Your task to perform on an android device: open device folders in google photos Image 0: 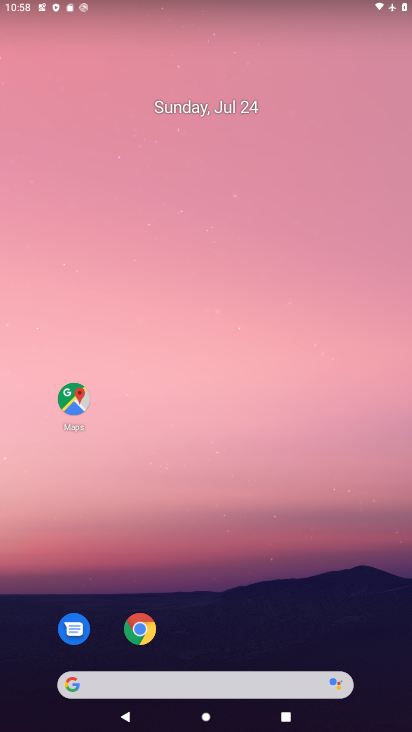
Step 0: click (281, 633)
Your task to perform on an android device: open device folders in google photos Image 1: 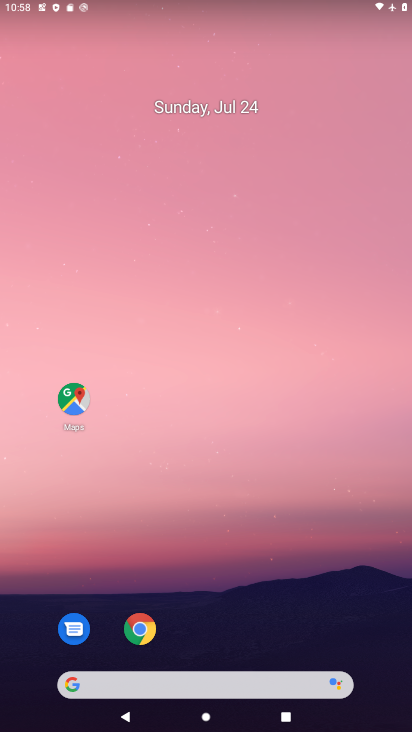
Step 1: drag from (281, 633) to (281, 162)
Your task to perform on an android device: open device folders in google photos Image 2: 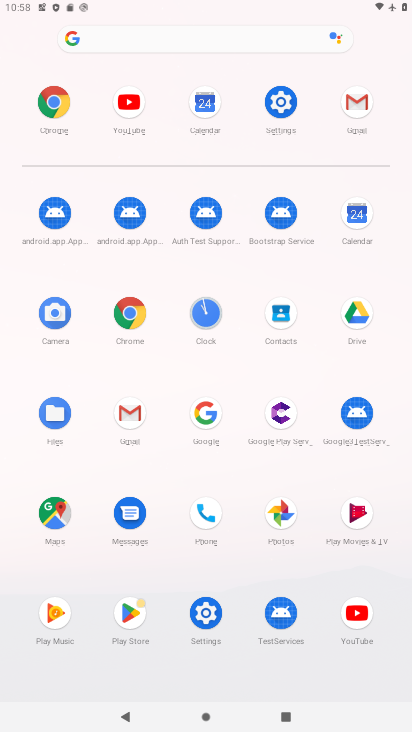
Step 2: click (280, 522)
Your task to perform on an android device: open device folders in google photos Image 3: 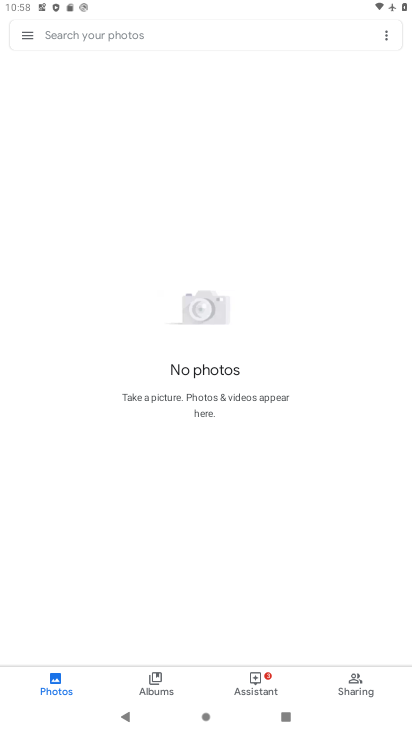
Step 3: task complete